Your task to perform on an android device: Open Wikipedia Image 0: 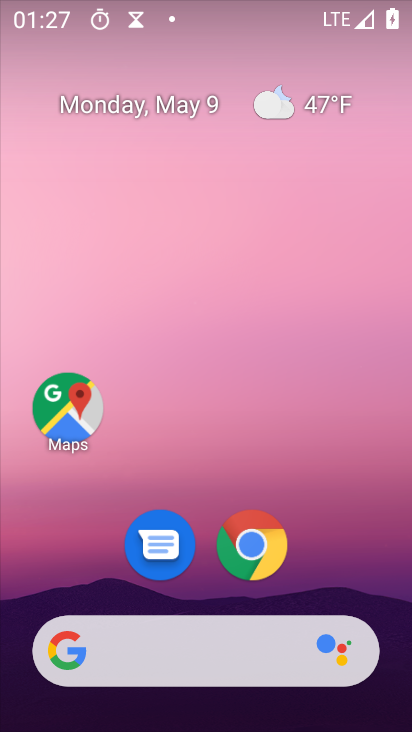
Step 0: drag from (304, 563) to (249, 1)
Your task to perform on an android device: Open Wikipedia Image 1: 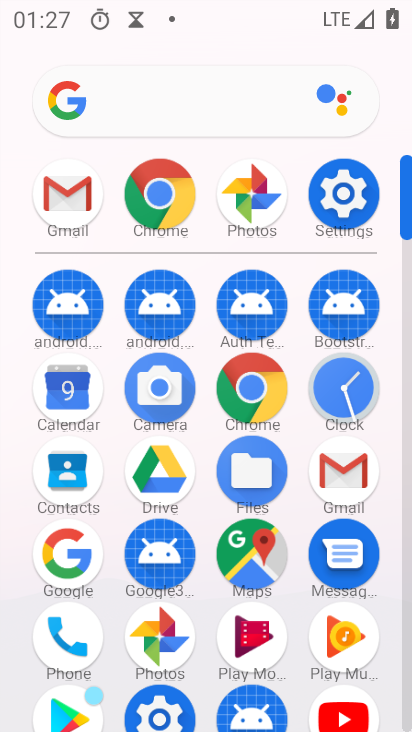
Step 1: click (246, 396)
Your task to perform on an android device: Open Wikipedia Image 2: 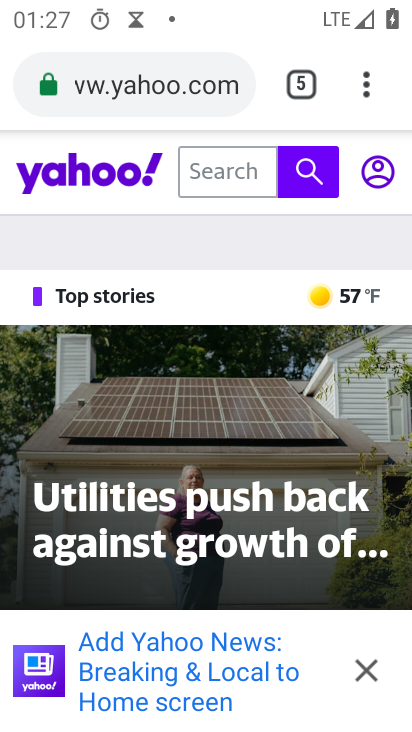
Step 2: drag from (341, 100) to (184, 177)
Your task to perform on an android device: Open Wikipedia Image 3: 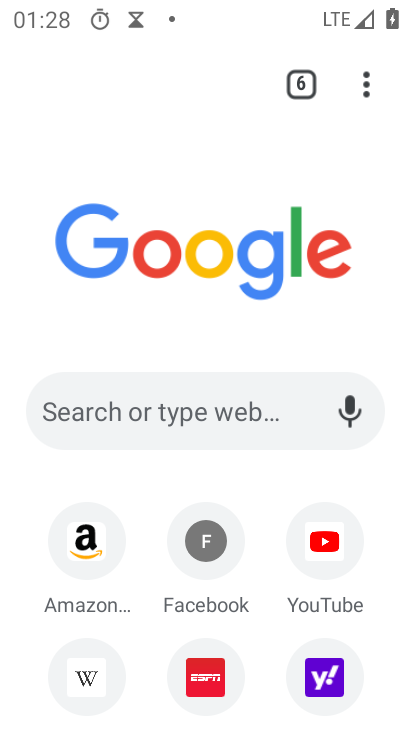
Step 3: click (196, 392)
Your task to perform on an android device: Open Wikipedia Image 4: 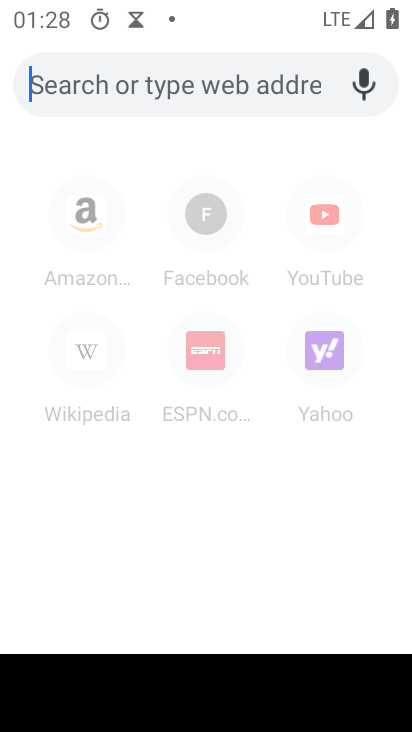
Step 4: type "wikipedia"
Your task to perform on an android device: Open Wikipedia Image 5: 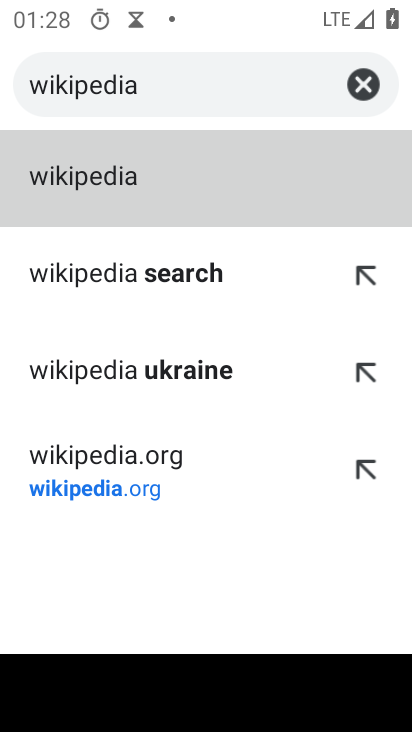
Step 5: click (213, 185)
Your task to perform on an android device: Open Wikipedia Image 6: 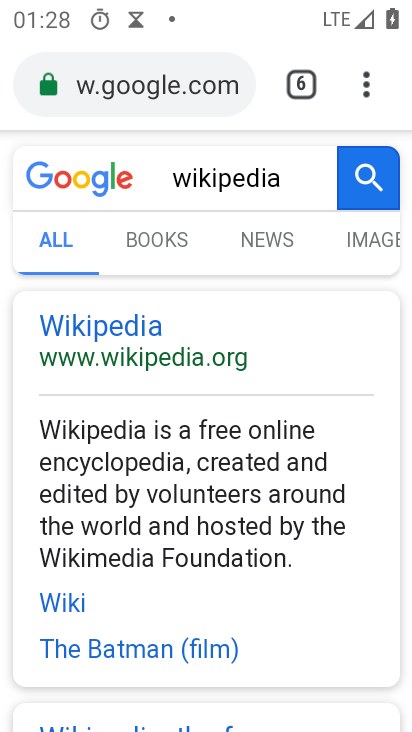
Step 6: task complete